Your task to perform on an android device: Open accessibility settings Image 0: 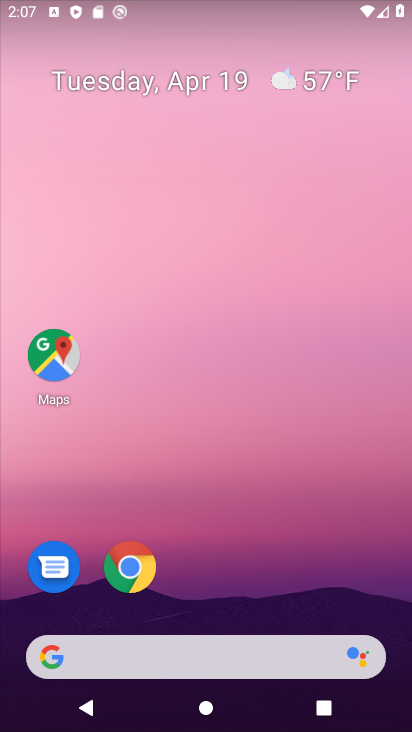
Step 0: drag from (384, 603) to (344, 119)
Your task to perform on an android device: Open accessibility settings Image 1: 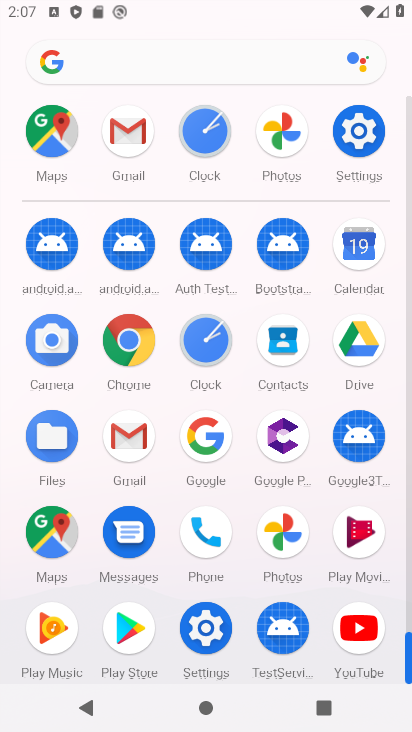
Step 1: click (206, 625)
Your task to perform on an android device: Open accessibility settings Image 2: 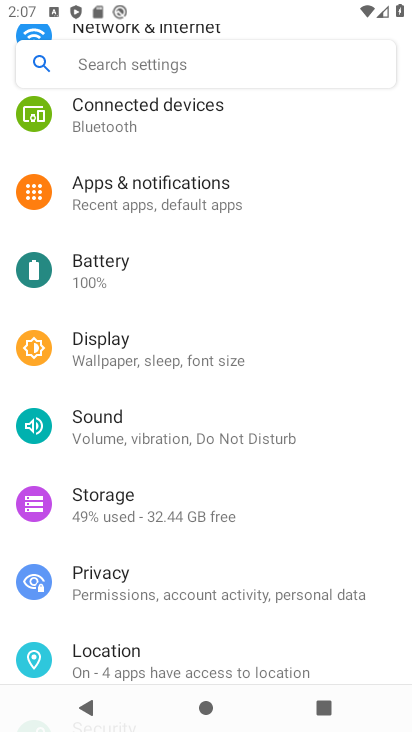
Step 2: drag from (363, 555) to (352, 320)
Your task to perform on an android device: Open accessibility settings Image 3: 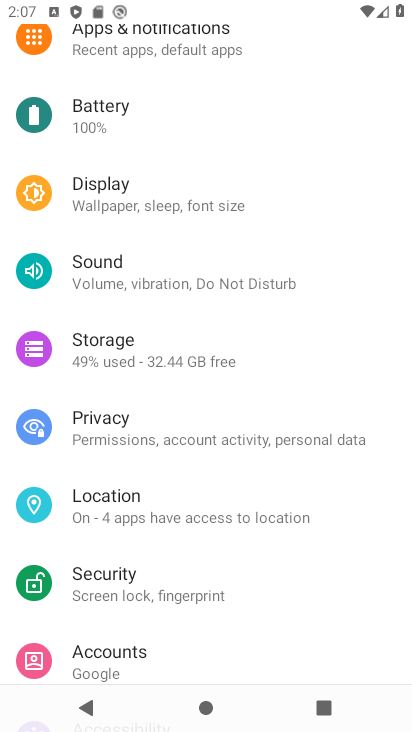
Step 3: drag from (285, 610) to (378, 281)
Your task to perform on an android device: Open accessibility settings Image 4: 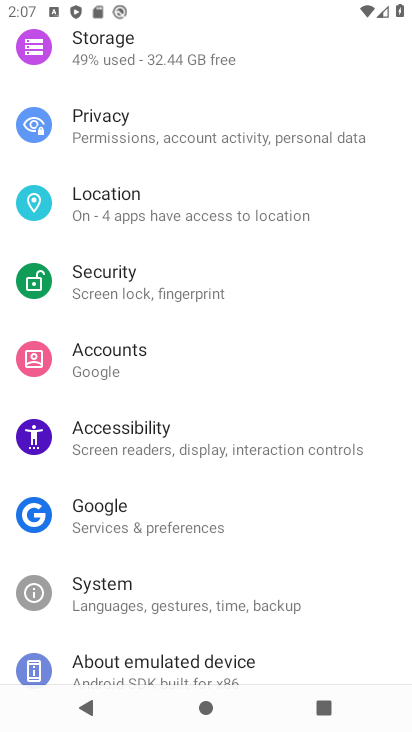
Step 4: click (92, 441)
Your task to perform on an android device: Open accessibility settings Image 5: 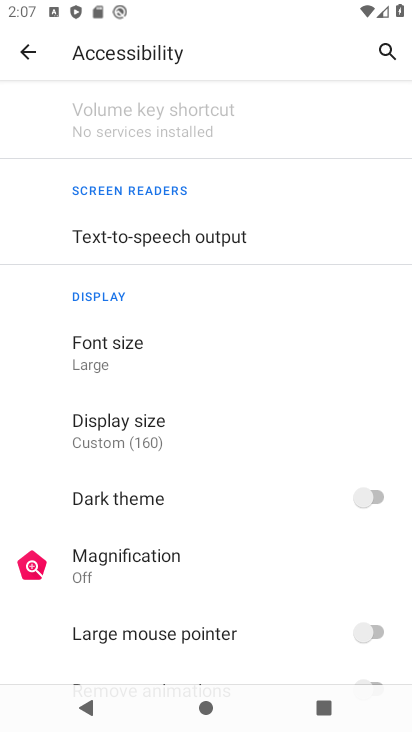
Step 5: drag from (315, 614) to (315, 285)
Your task to perform on an android device: Open accessibility settings Image 6: 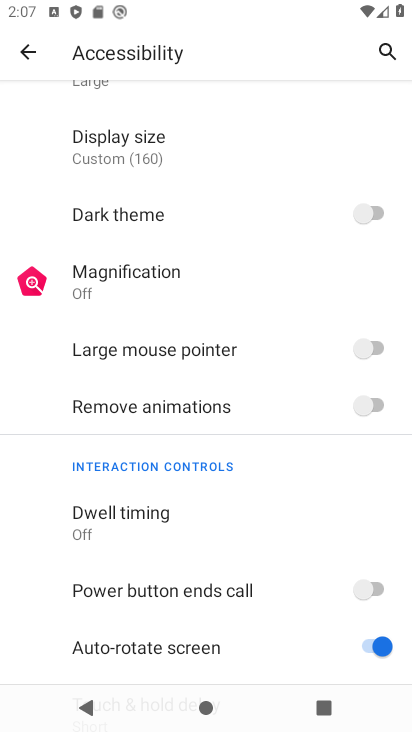
Step 6: drag from (314, 602) to (314, 246)
Your task to perform on an android device: Open accessibility settings Image 7: 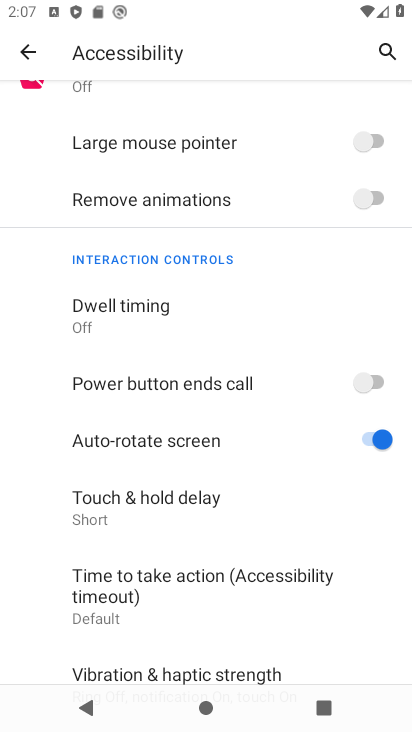
Step 7: drag from (321, 519) to (340, 227)
Your task to perform on an android device: Open accessibility settings Image 8: 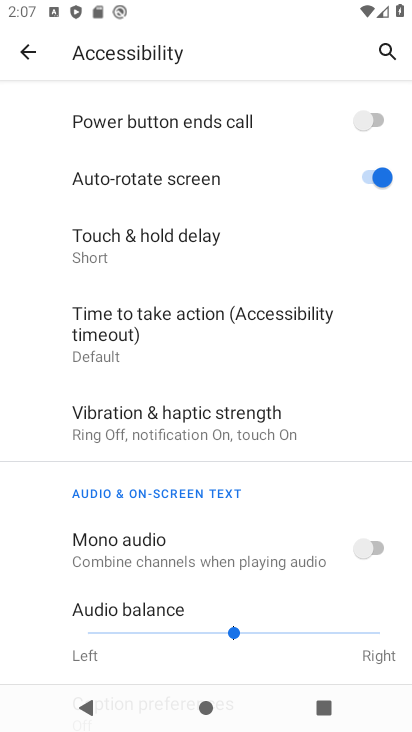
Step 8: drag from (319, 478) to (328, 196)
Your task to perform on an android device: Open accessibility settings Image 9: 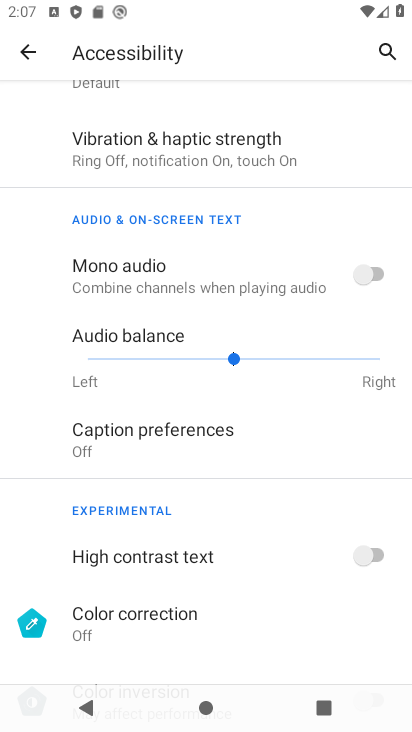
Step 9: drag from (309, 516) to (321, 212)
Your task to perform on an android device: Open accessibility settings Image 10: 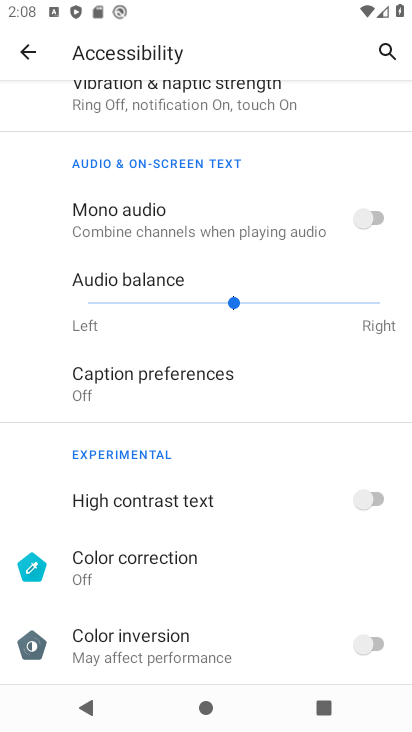
Step 10: click (291, 296)
Your task to perform on an android device: Open accessibility settings Image 11: 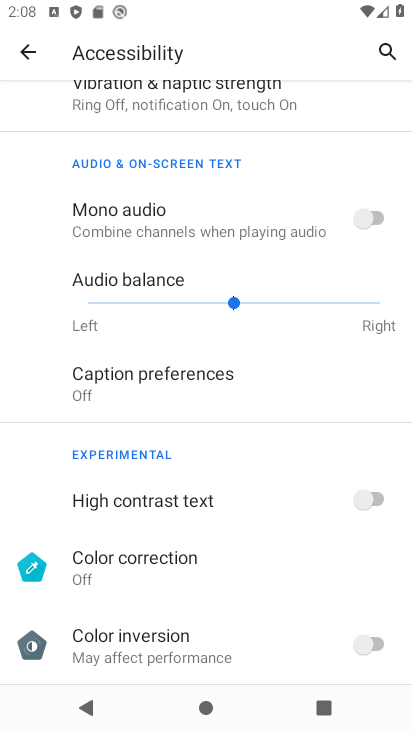
Step 11: task complete